Your task to perform on an android device: Clear all items from cart on ebay.com. Search for dell alienware on ebay.com, select the first entry, and add it to the cart. Image 0: 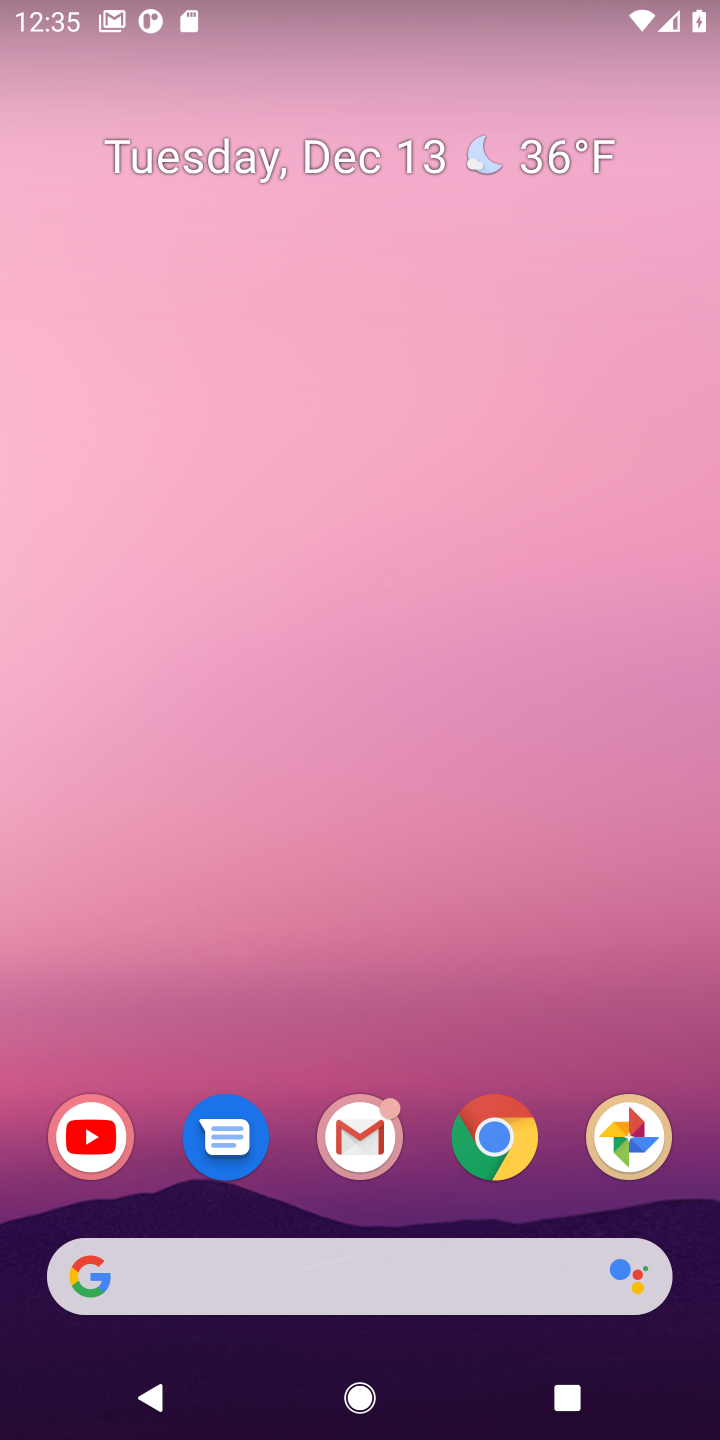
Step 0: click (371, 1276)
Your task to perform on an android device: Clear all items from cart on ebay.com. Search for dell alienware on ebay.com, select the first entry, and add it to the cart. Image 1: 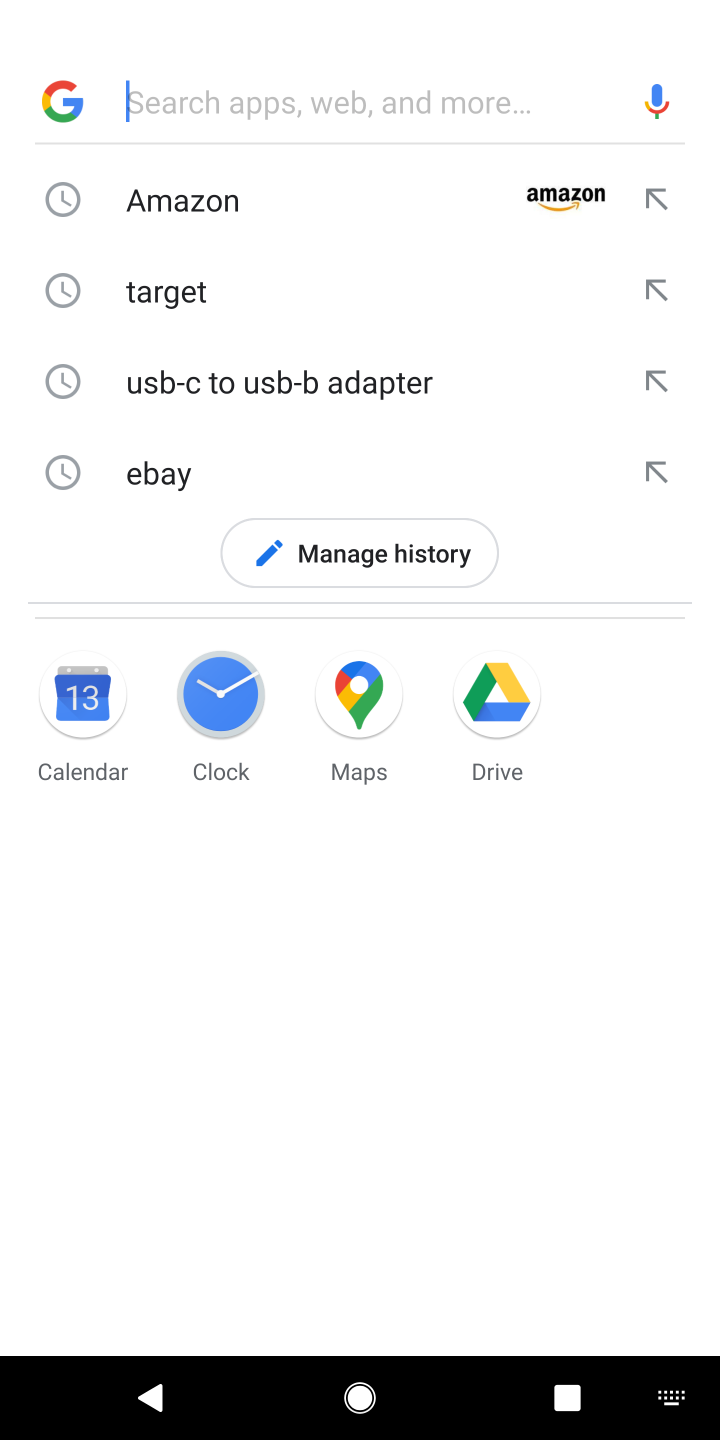
Step 1: click (193, 494)
Your task to perform on an android device: Clear all items from cart on ebay.com. Search for dell alienware on ebay.com, select the first entry, and add it to the cart. Image 2: 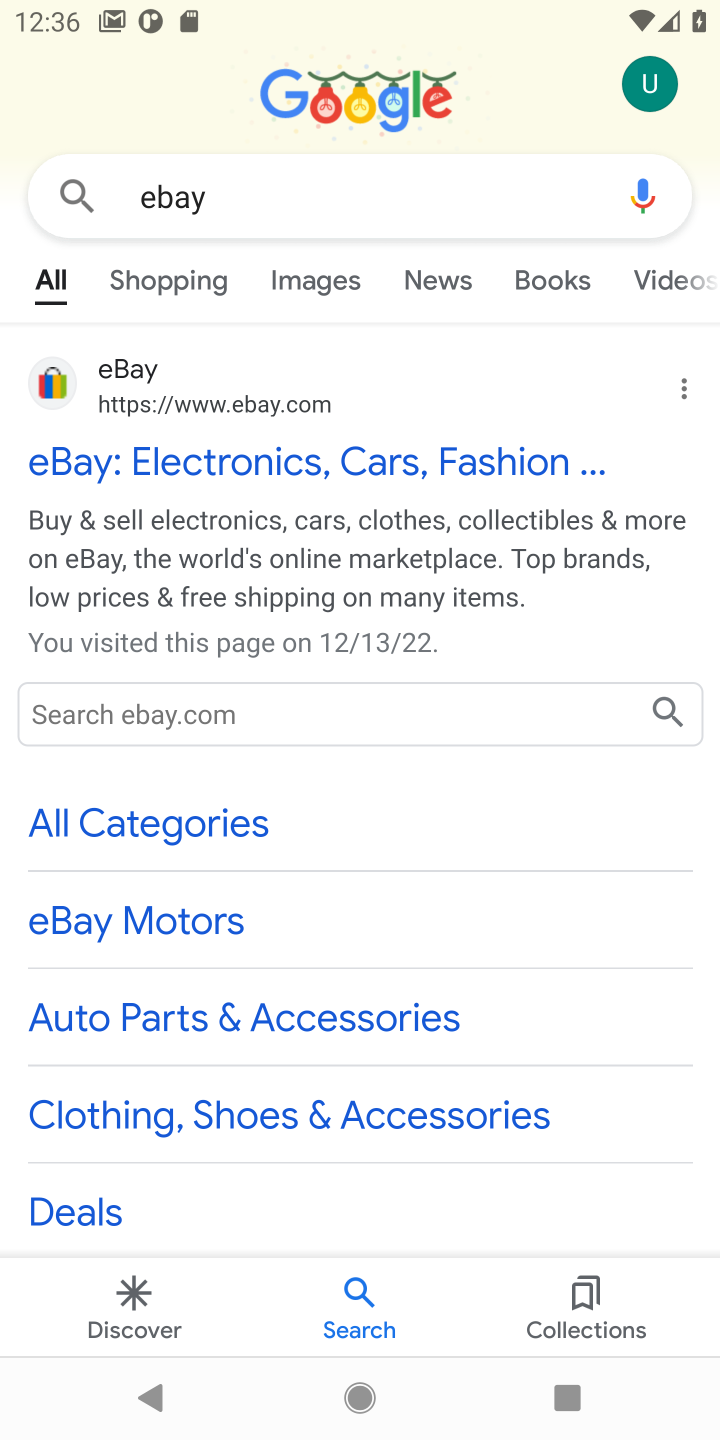
Step 2: click (100, 432)
Your task to perform on an android device: Clear all items from cart on ebay.com. Search for dell alienware on ebay.com, select the first entry, and add it to the cart. Image 3: 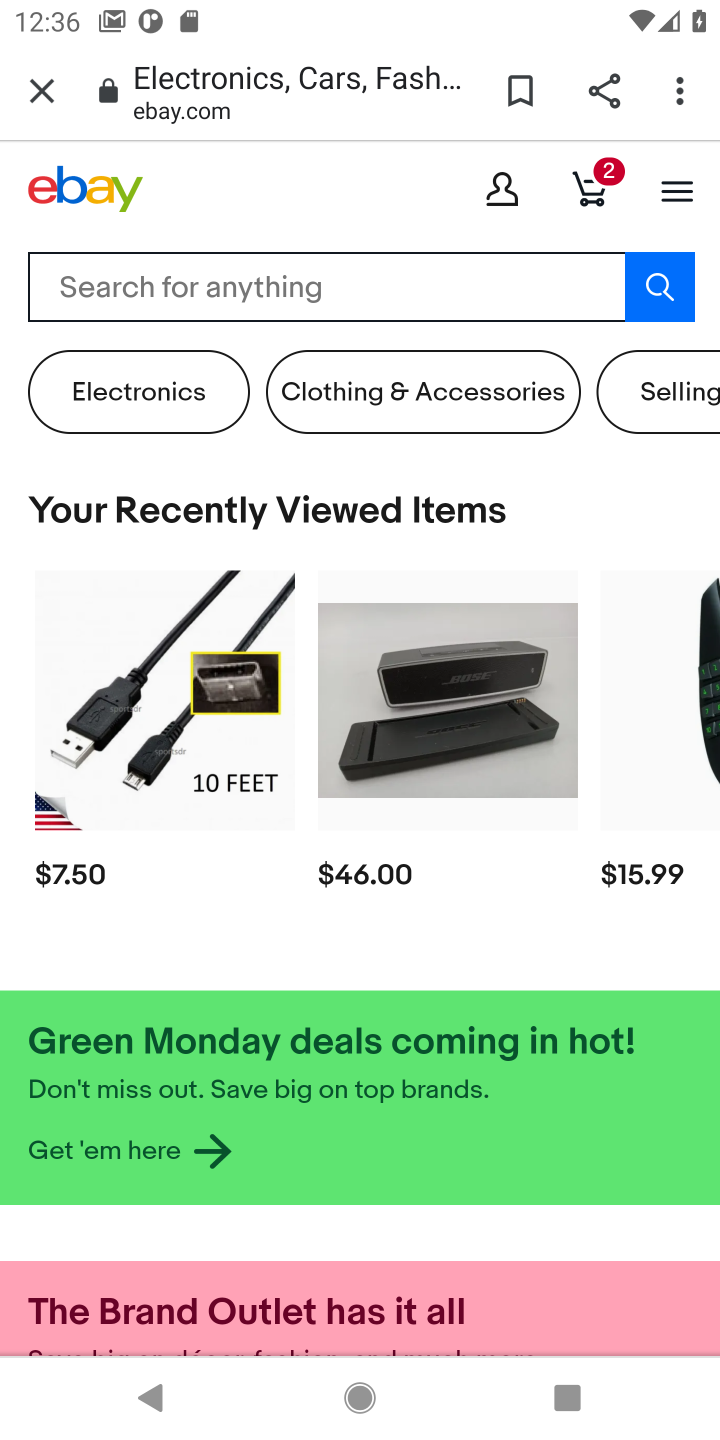
Step 3: click (269, 293)
Your task to perform on an android device: Clear all items from cart on ebay.com. Search for dell alienware on ebay.com, select the first entry, and add it to the cart. Image 4: 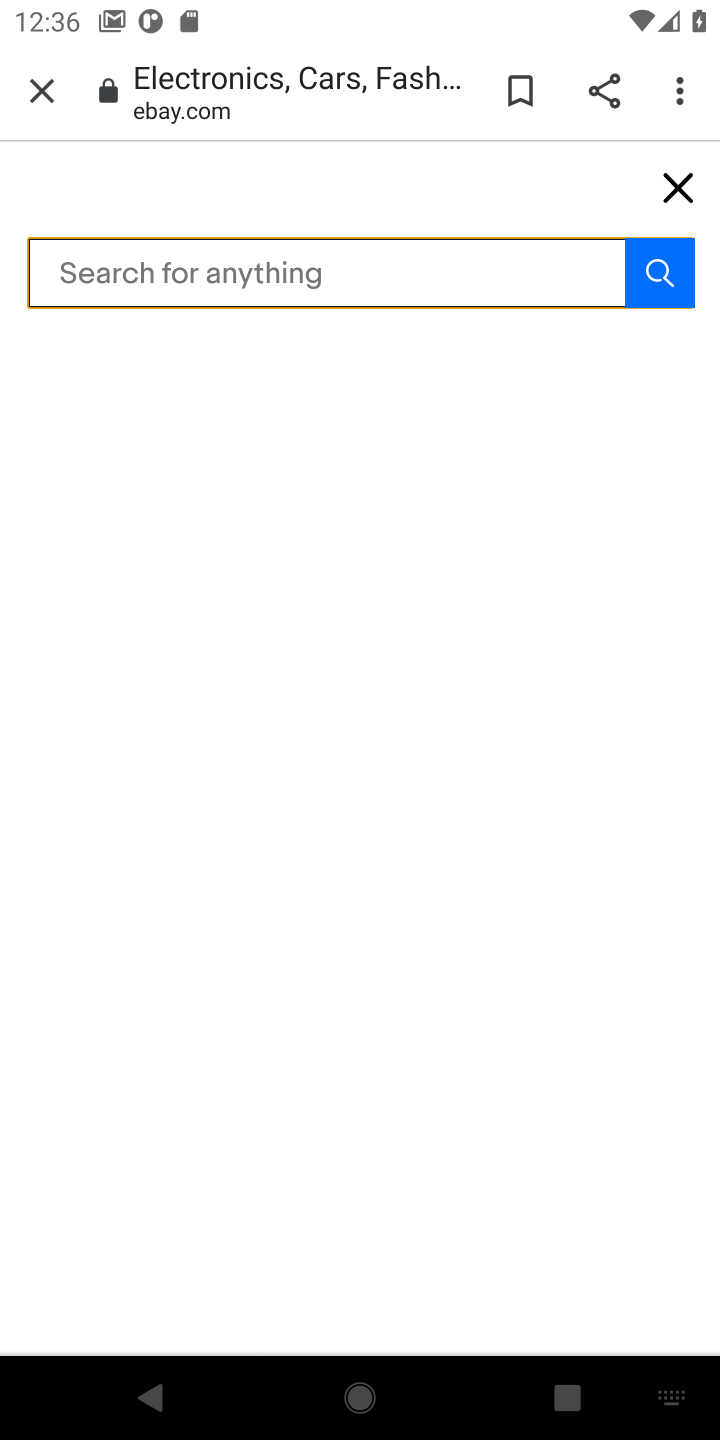
Step 4: type "dell alienware "
Your task to perform on an android device: Clear all items from cart on ebay.com. Search for dell alienware on ebay.com, select the first entry, and add it to the cart. Image 5: 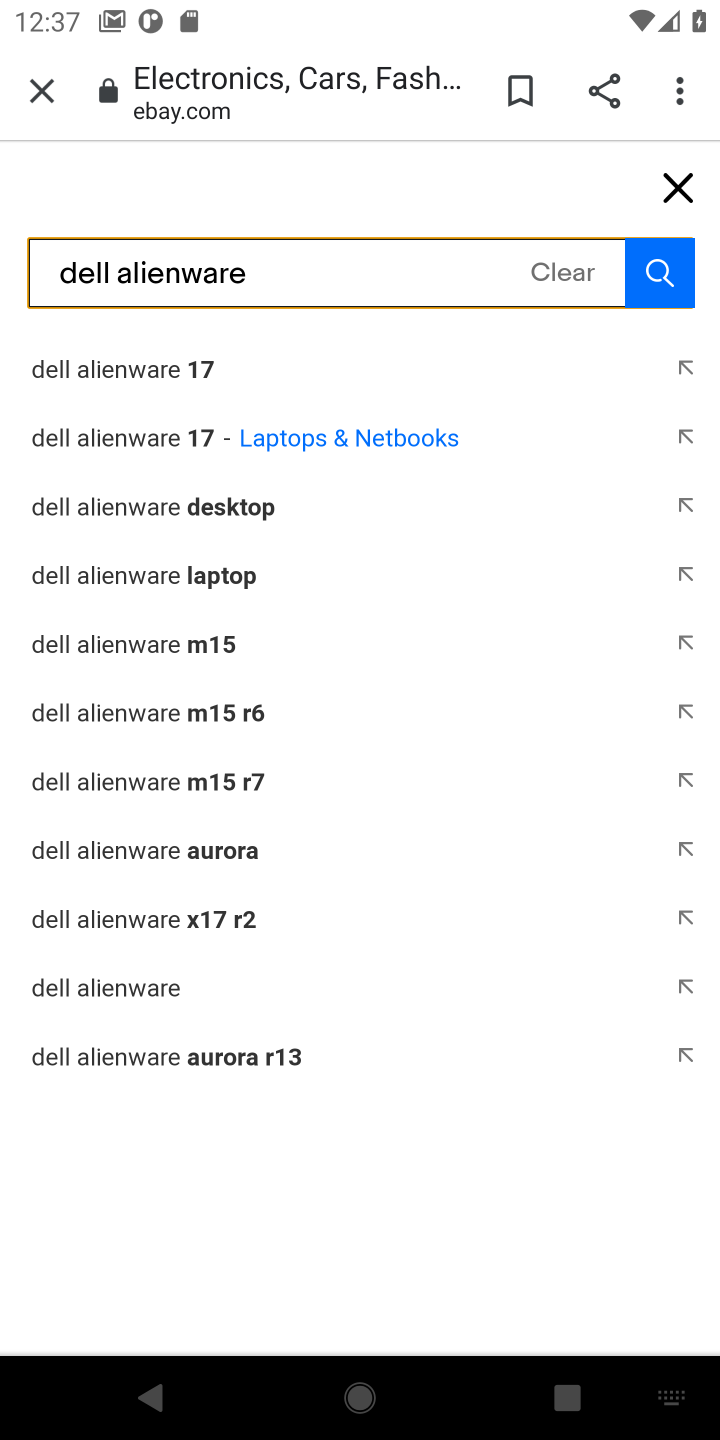
Step 5: click (673, 293)
Your task to perform on an android device: Clear all items from cart on ebay.com. Search for dell alienware on ebay.com, select the first entry, and add it to the cart. Image 6: 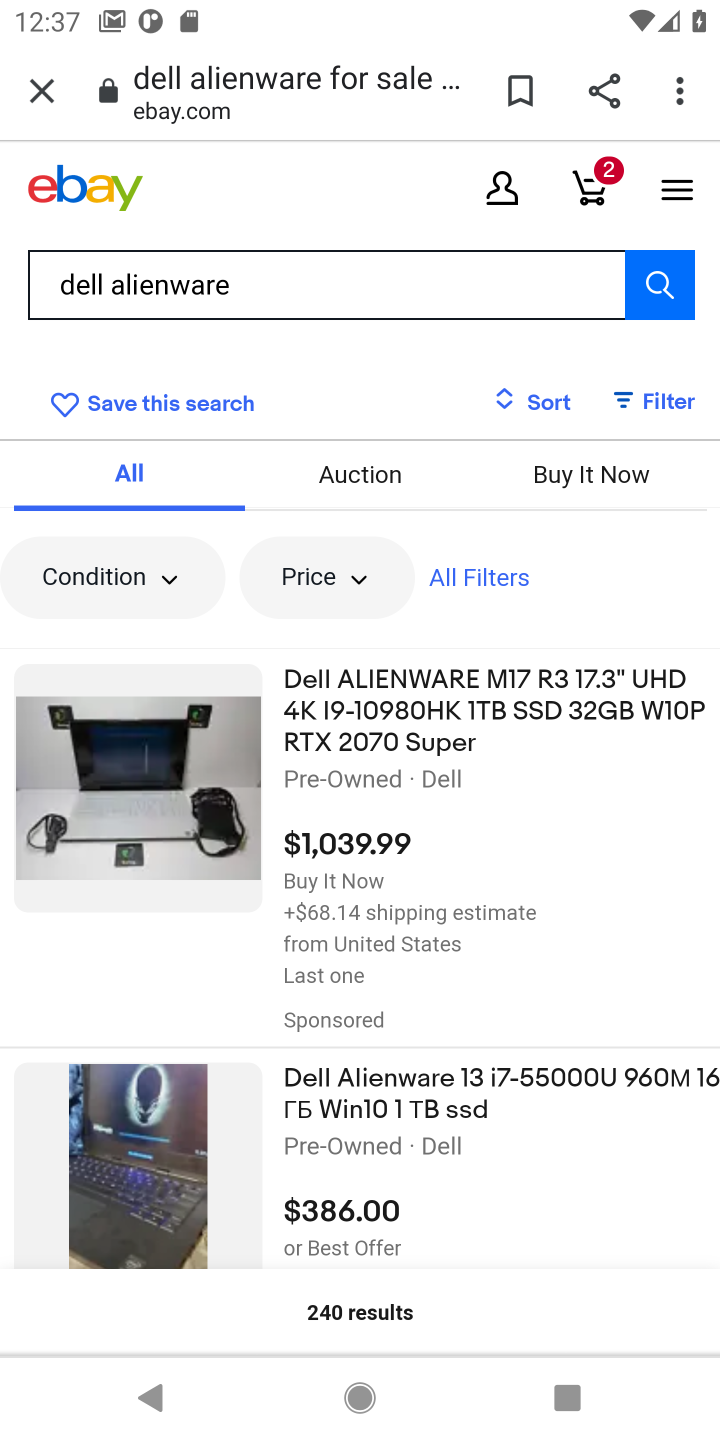
Step 6: click (422, 1144)
Your task to perform on an android device: Clear all items from cart on ebay.com. Search for dell alienware on ebay.com, select the first entry, and add it to the cart. Image 7: 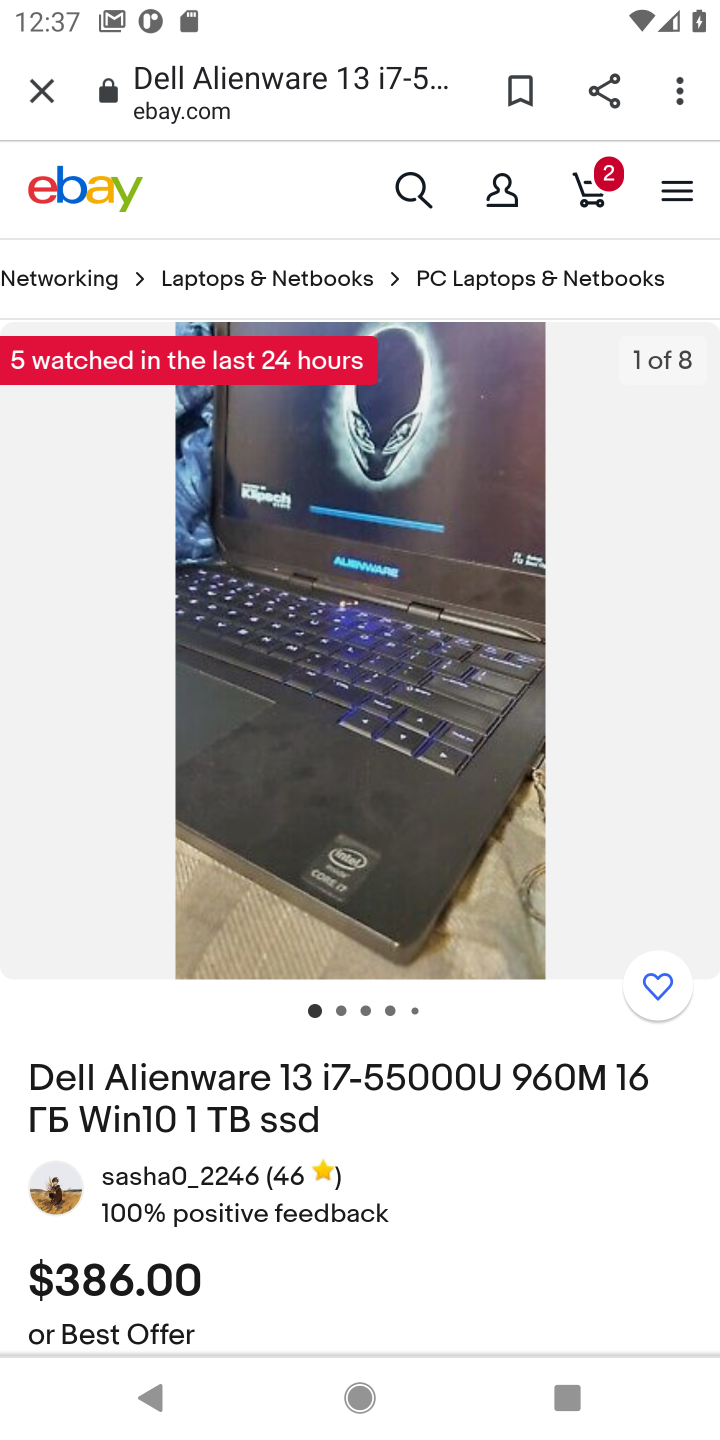
Step 7: drag from (481, 1174) to (380, 322)
Your task to perform on an android device: Clear all items from cart on ebay.com. Search for dell alienware on ebay.com, select the first entry, and add it to the cart. Image 8: 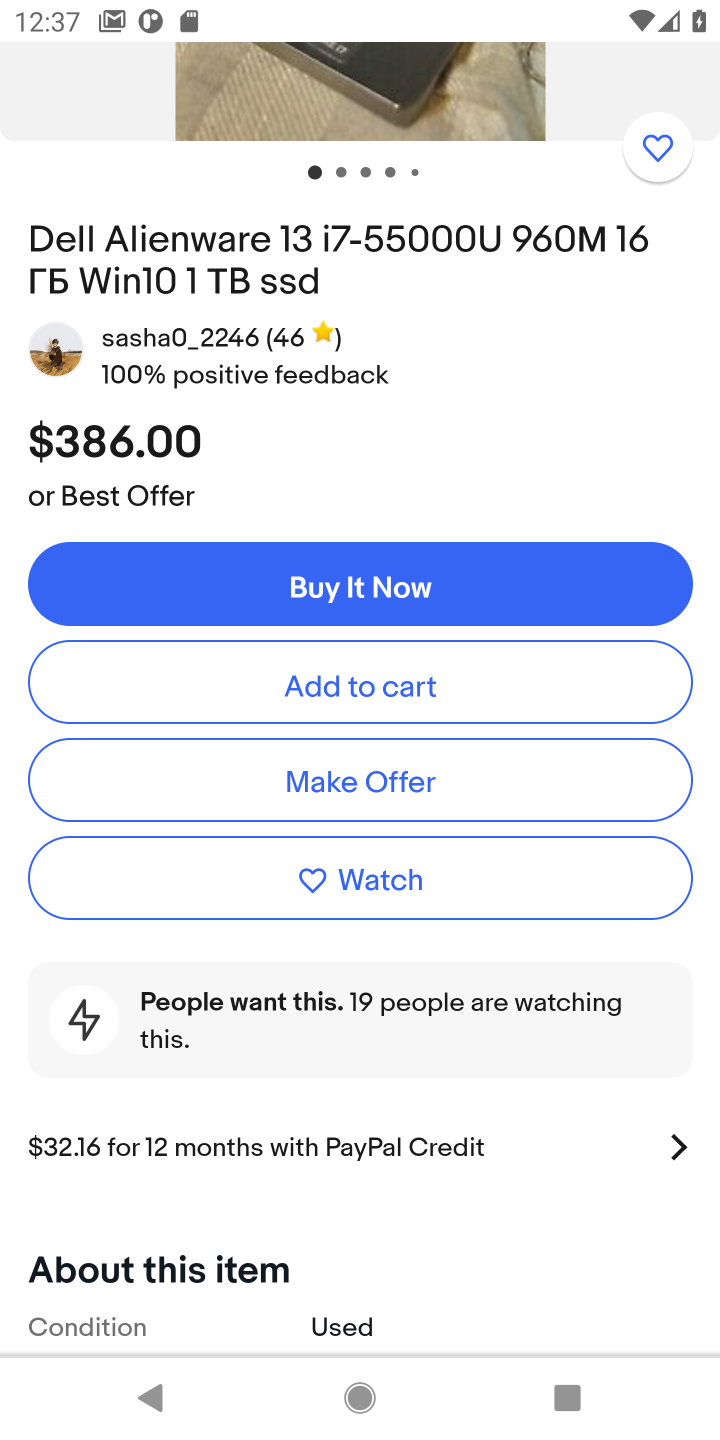
Step 8: click (495, 692)
Your task to perform on an android device: Clear all items from cart on ebay.com. Search for dell alienware on ebay.com, select the first entry, and add it to the cart. Image 9: 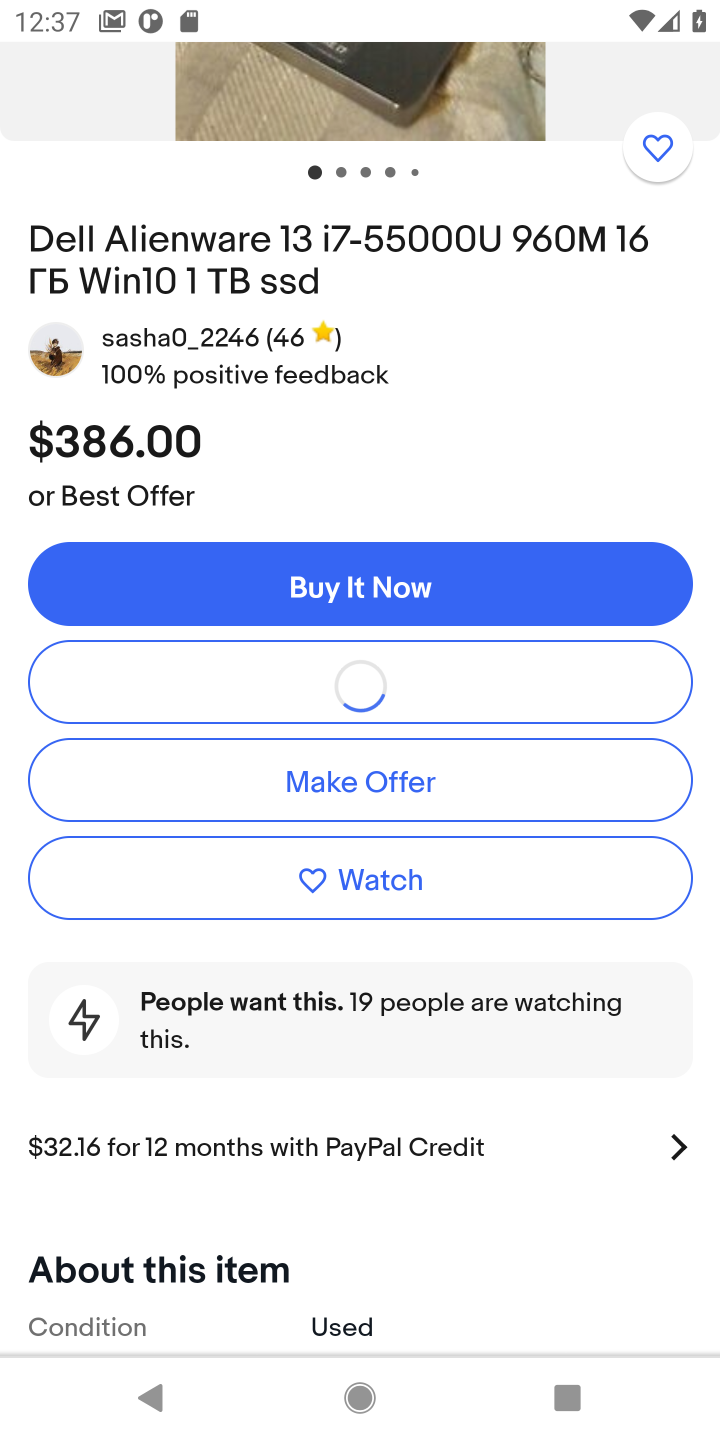
Step 9: task complete